Your task to perform on an android device: turn off data saver in the chrome app Image 0: 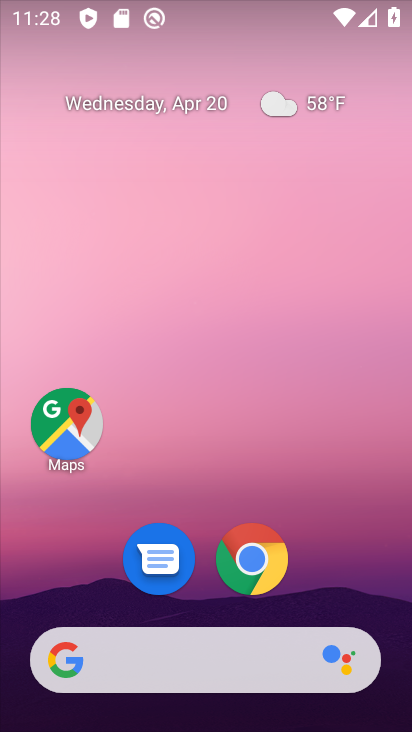
Step 0: click (253, 571)
Your task to perform on an android device: turn off data saver in the chrome app Image 1: 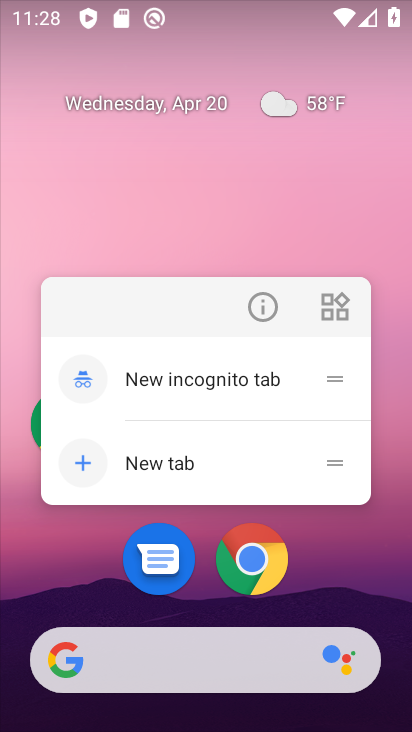
Step 1: click (257, 562)
Your task to perform on an android device: turn off data saver in the chrome app Image 2: 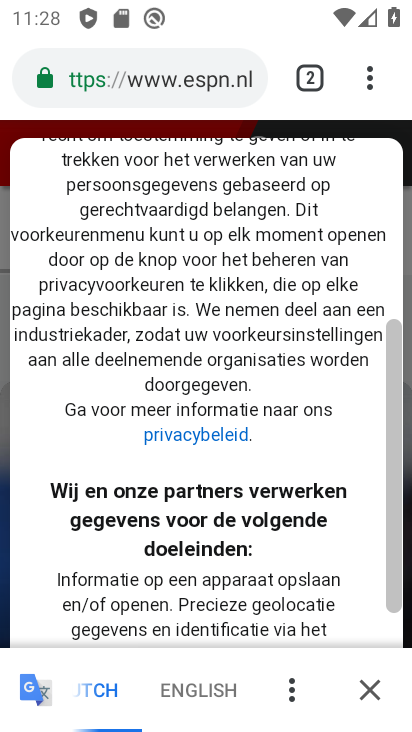
Step 2: click (371, 80)
Your task to perform on an android device: turn off data saver in the chrome app Image 3: 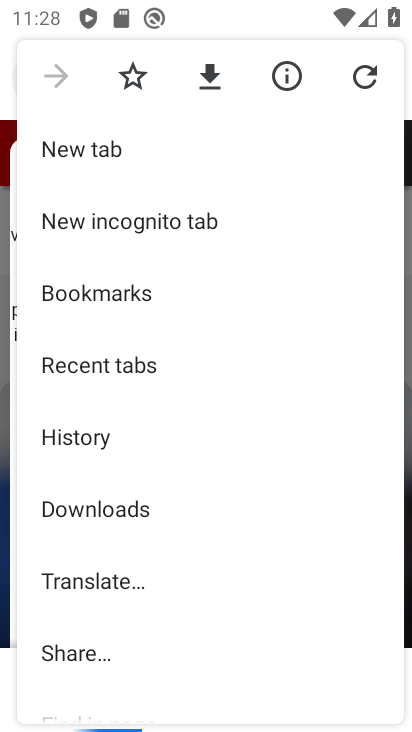
Step 3: drag from (188, 557) to (218, 228)
Your task to perform on an android device: turn off data saver in the chrome app Image 4: 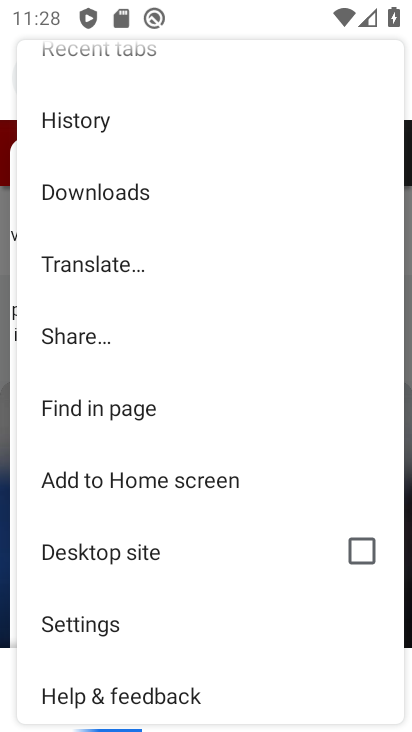
Step 4: click (124, 619)
Your task to perform on an android device: turn off data saver in the chrome app Image 5: 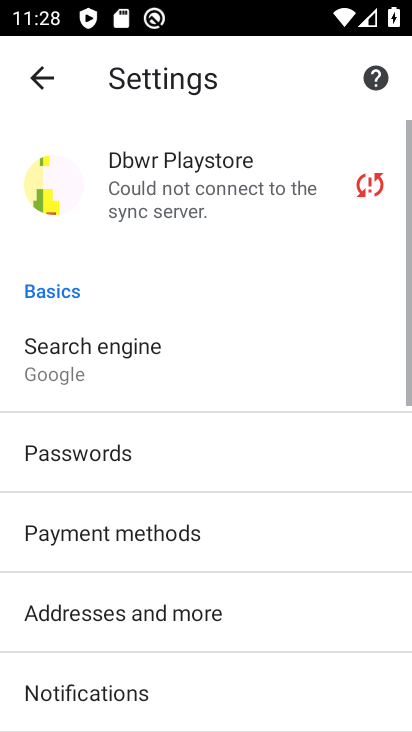
Step 5: drag from (178, 639) to (182, 230)
Your task to perform on an android device: turn off data saver in the chrome app Image 6: 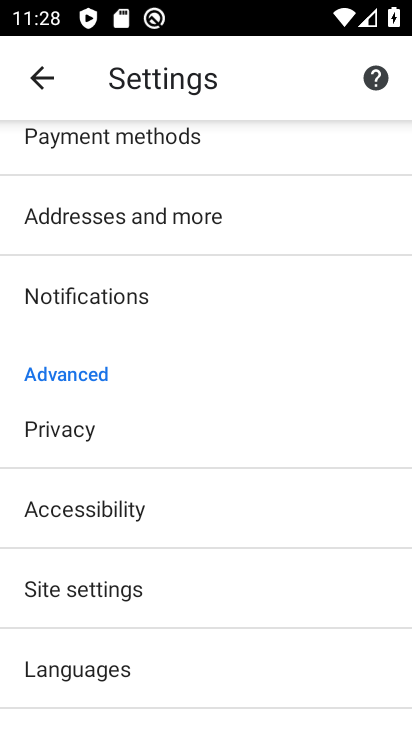
Step 6: drag from (164, 641) to (173, 337)
Your task to perform on an android device: turn off data saver in the chrome app Image 7: 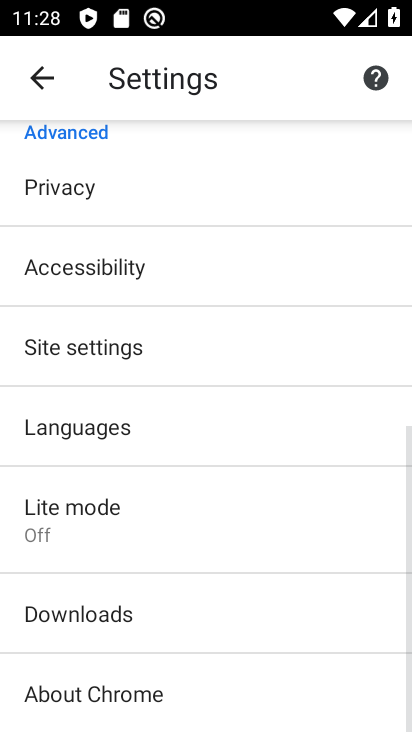
Step 7: click (125, 515)
Your task to perform on an android device: turn off data saver in the chrome app Image 8: 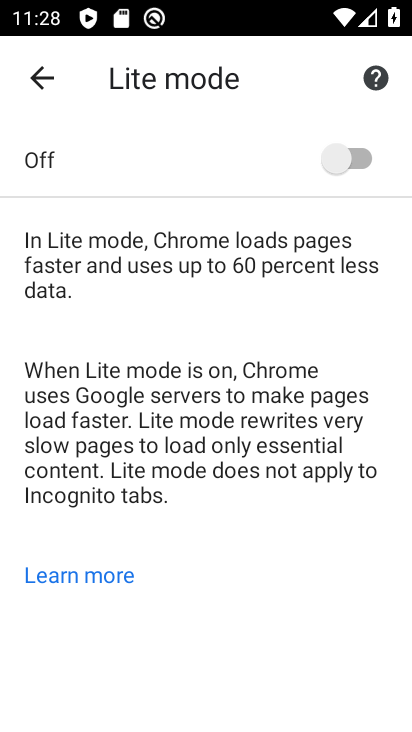
Step 8: task complete